Your task to perform on an android device: Open ESPN.com Image 0: 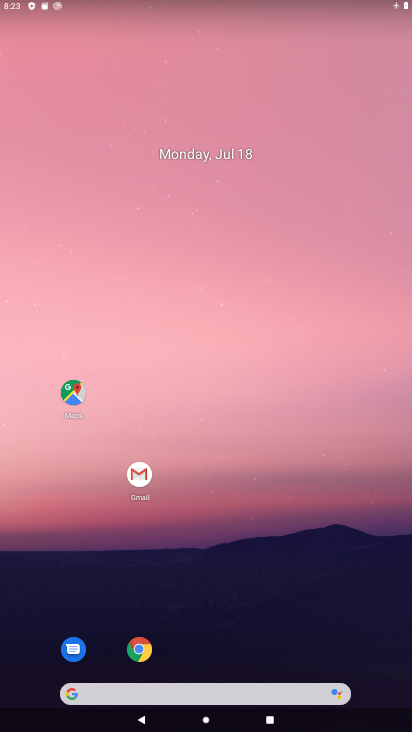
Step 0: click (190, 690)
Your task to perform on an android device: Open ESPN.com Image 1: 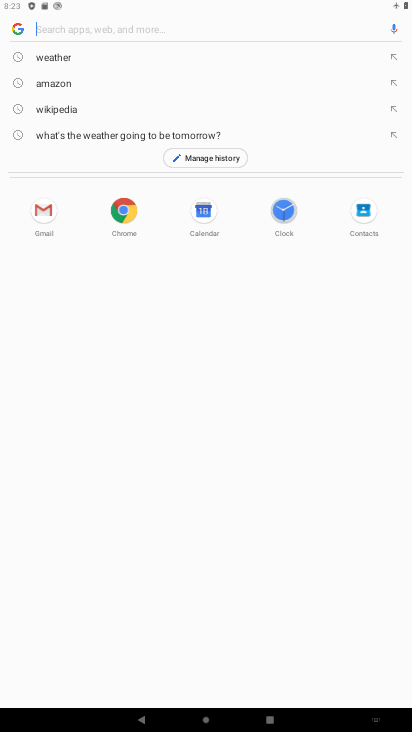
Step 1: type " ESPN.com"
Your task to perform on an android device: Open ESPN.com Image 2: 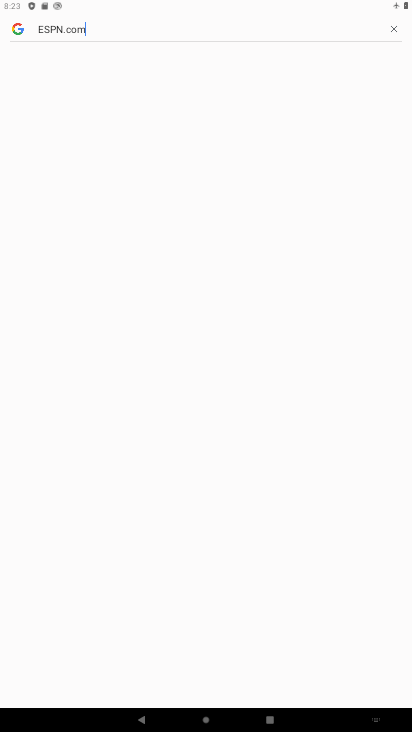
Step 2: press enter
Your task to perform on an android device: Open ESPN.com Image 3: 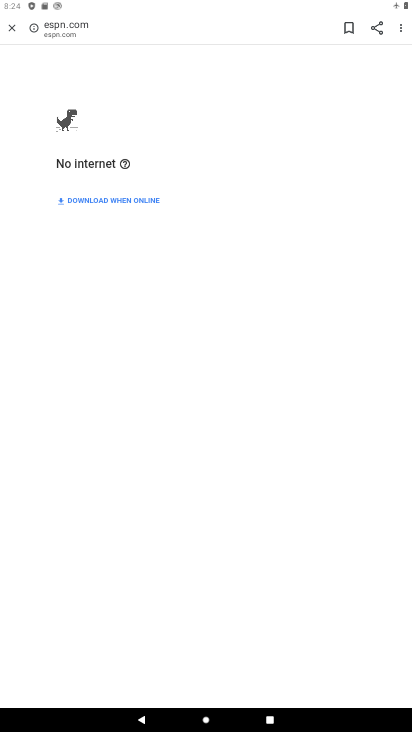
Step 3: drag from (335, 0) to (305, 267)
Your task to perform on an android device: Open ESPN.com Image 4: 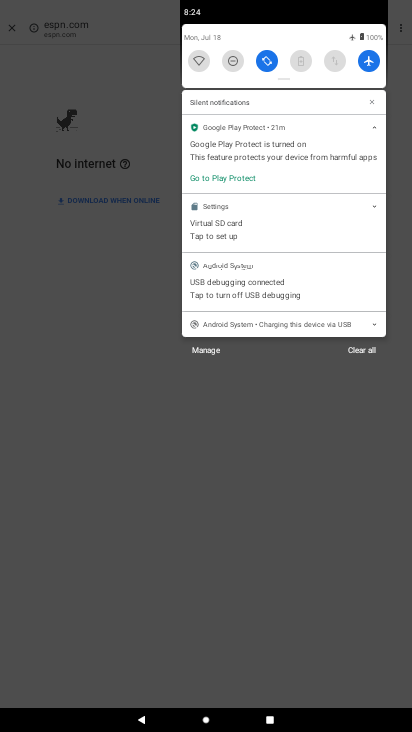
Step 4: click (371, 60)
Your task to perform on an android device: Open ESPN.com Image 5: 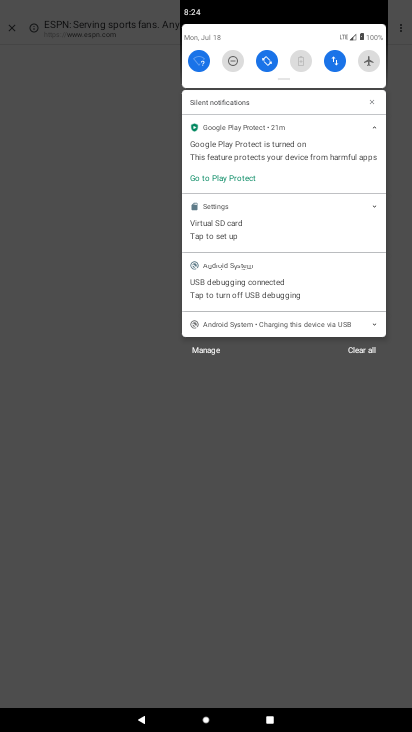
Step 5: click (243, 479)
Your task to perform on an android device: Open ESPN.com Image 6: 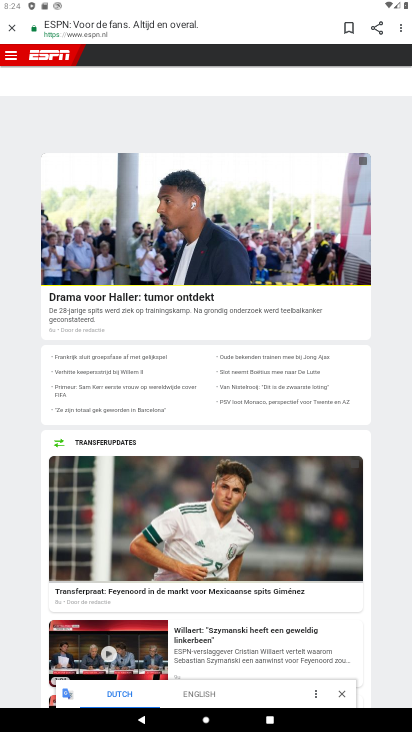
Step 6: task complete